Your task to perform on an android device: check the backup settings in the google photos Image 0: 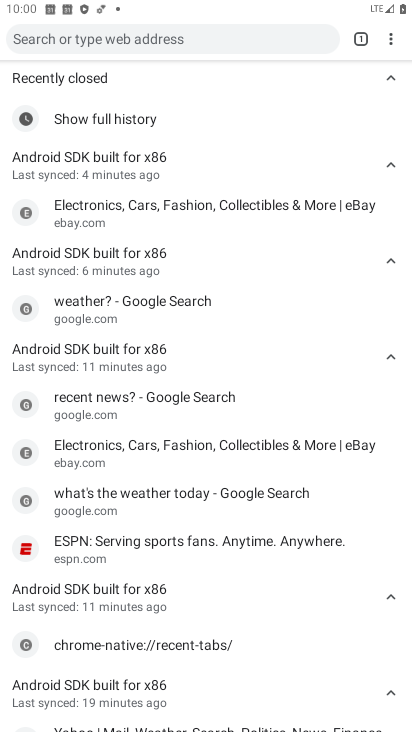
Step 0: drag from (273, 553) to (192, 49)
Your task to perform on an android device: check the backup settings in the google photos Image 1: 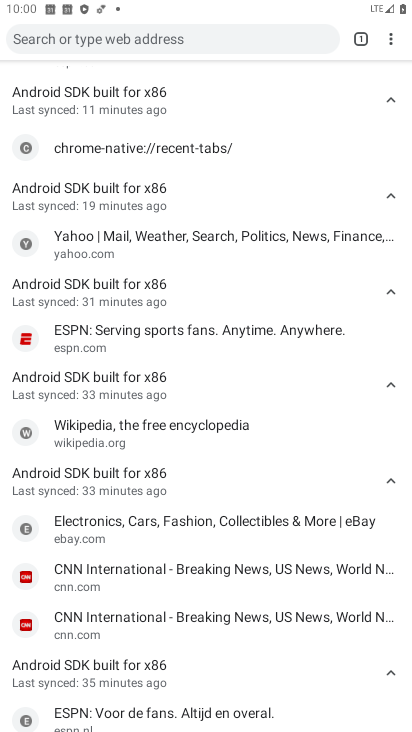
Step 1: press home button
Your task to perform on an android device: check the backup settings in the google photos Image 2: 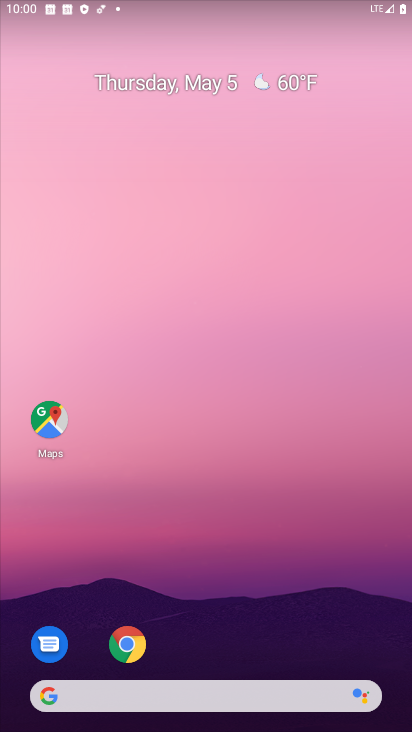
Step 2: drag from (208, 527) to (348, 75)
Your task to perform on an android device: check the backup settings in the google photos Image 3: 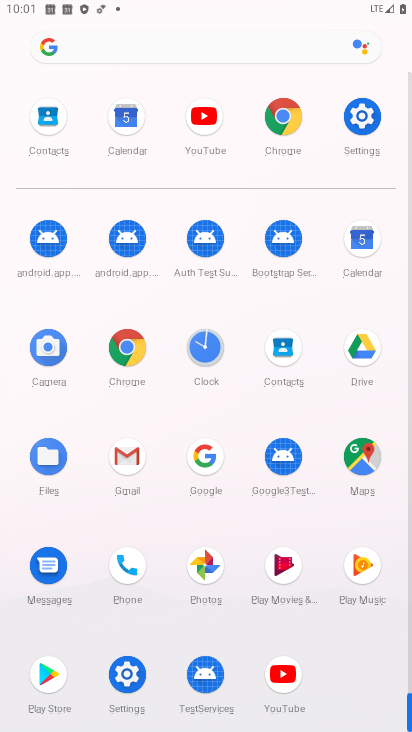
Step 3: click (197, 574)
Your task to perform on an android device: check the backup settings in the google photos Image 4: 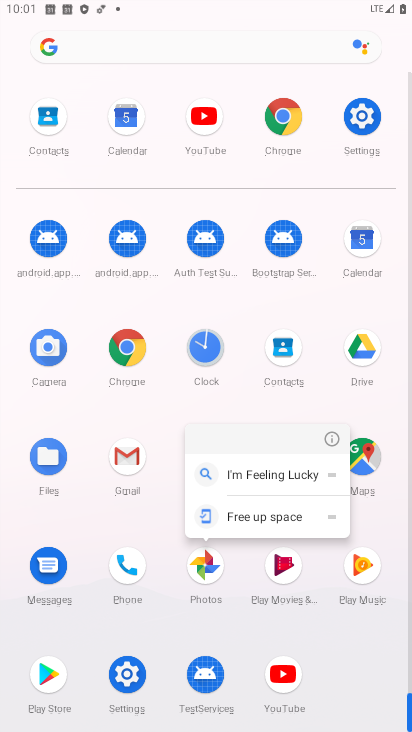
Step 4: click (339, 436)
Your task to perform on an android device: check the backup settings in the google photos Image 5: 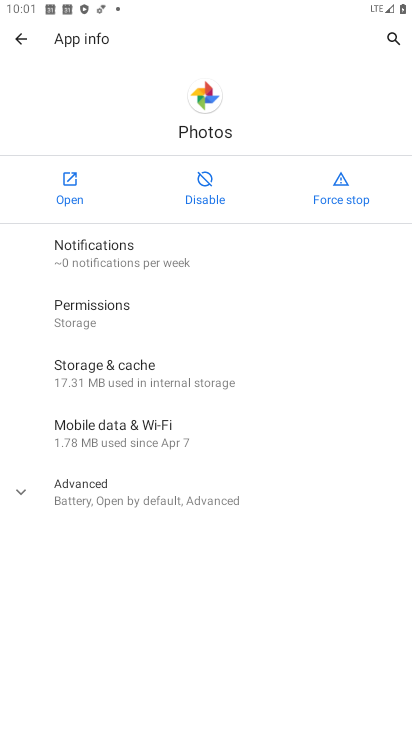
Step 5: click (64, 191)
Your task to perform on an android device: check the backup settings in the google photos Image 6: 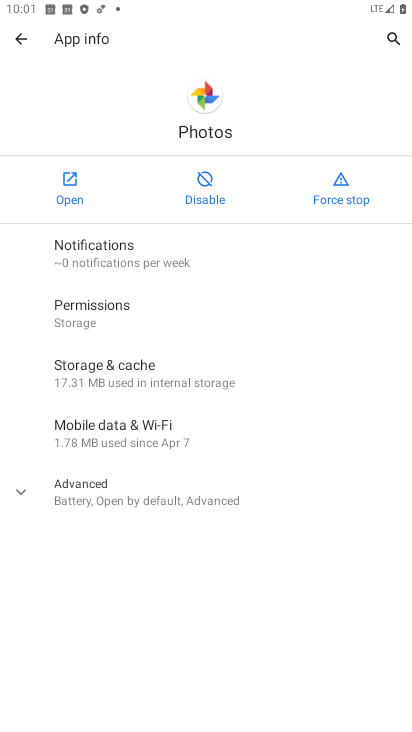
Step 6: click (64, 191)
Your task to perform on an android device: check the backup settings in the google photos Image 7: 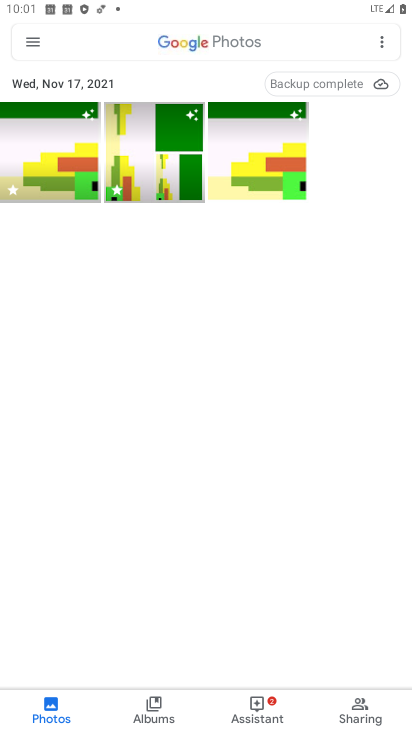
Step 7: drag from (172, 509) to (220, 195)
Your task to perform on an android device: check the backup settings in the google photos Image 8: 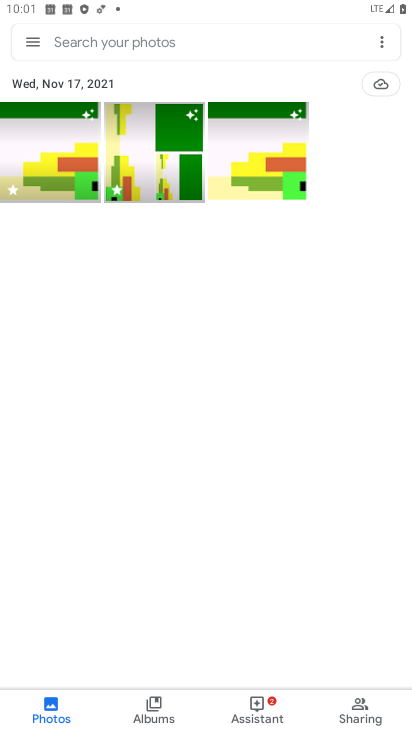
Step 8: click (64, 150)
Your task to perform on an android device: check the backup settings in the google photos Image 9: 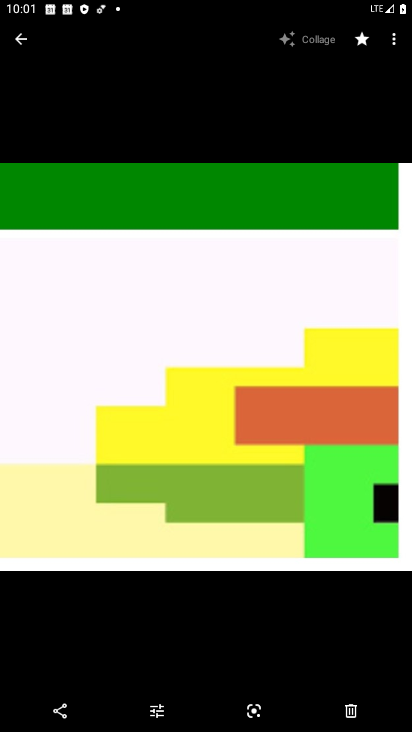
Step 9: drag from (23, 428) to (13, 327)
Your task to perform on an android device: check the backup settings in the google photos Image 10: 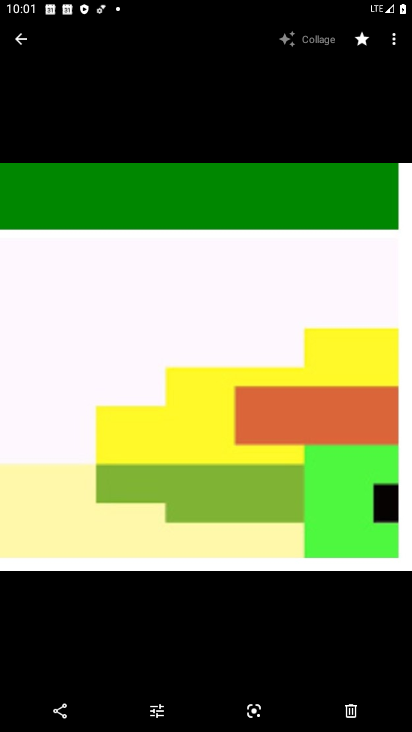
Step 10: click (16, 45)
Your task to perform on an android device: check the backup settings in the google photos Image 11: 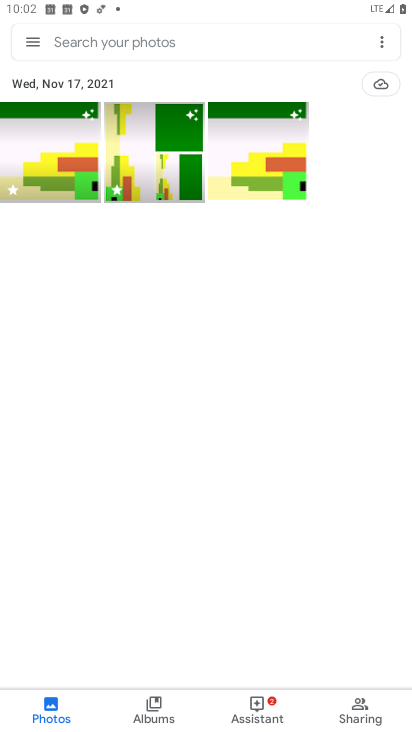
Step 11: click (31, 48)
Your task to perform on an android device: check the backup settings in the google photos Image 12: 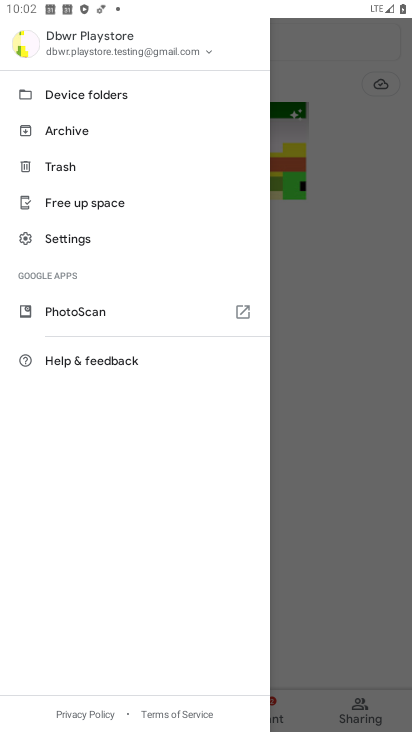
Step 12: click (70, 250)
Your task to perform on an android device: check the backup settings in the google photos Image 13: 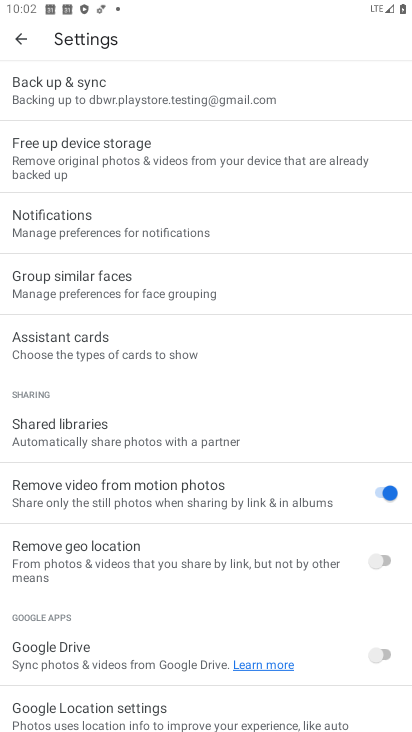
Step 13: click (107, 101)
Your task to perform on an android device: check the backup settings in the google photos Image 14: 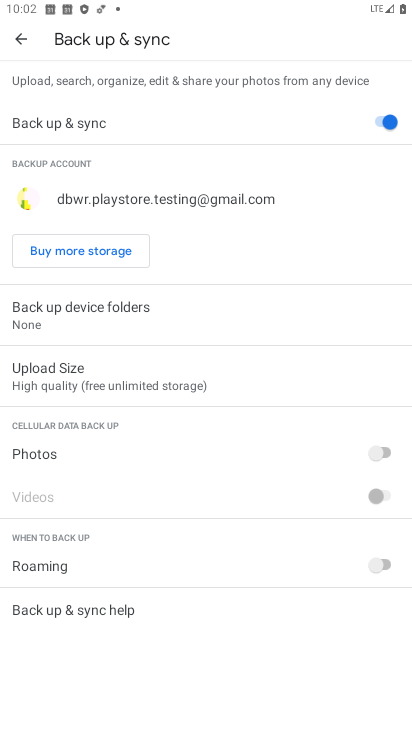
Step 14: click (23, 39)
Your task to perform on an android device: check the backup settings in the google photos Image 15: 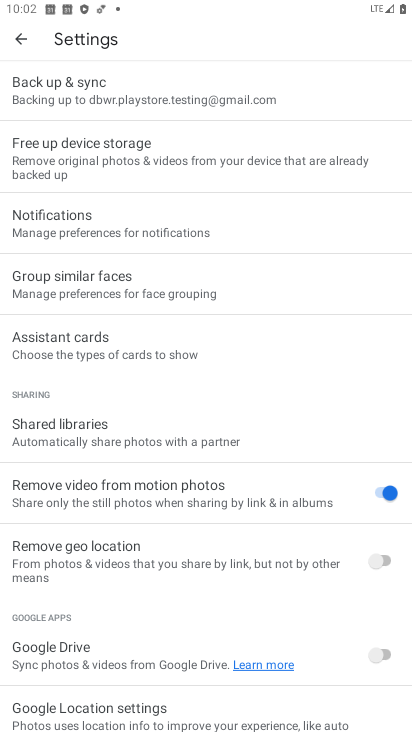
Step 15: click (105, 108)
Your task to perform on an android device: check the backup settings in the google photos Image 16: 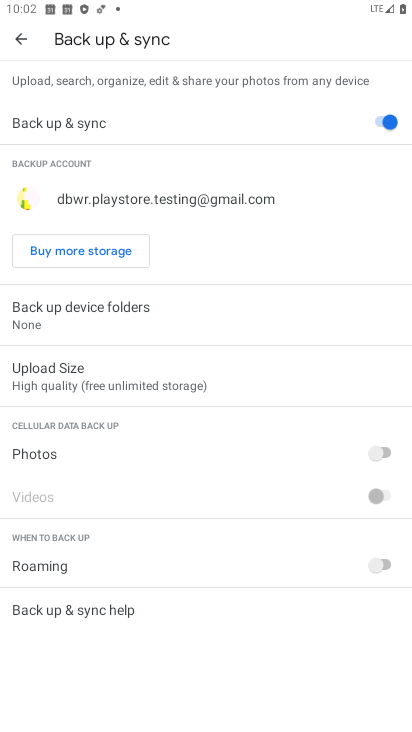
Step 16: task complete